Your task to perform on an android device: Go to Yahoo.com Image 0: 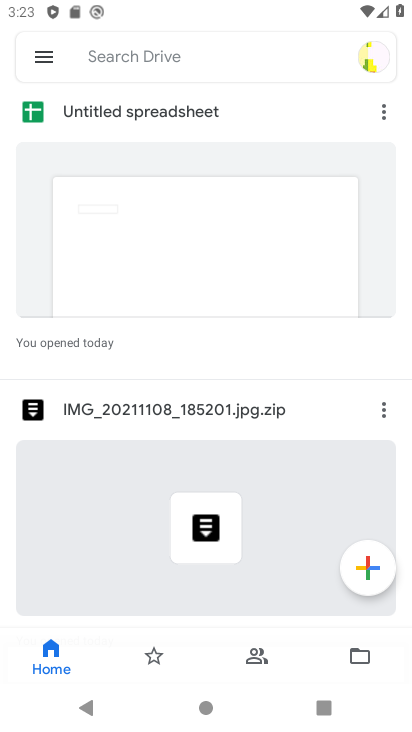
Step 0: press home button
Your task to perform on an android device: Go to Yahoo.com Image 1: 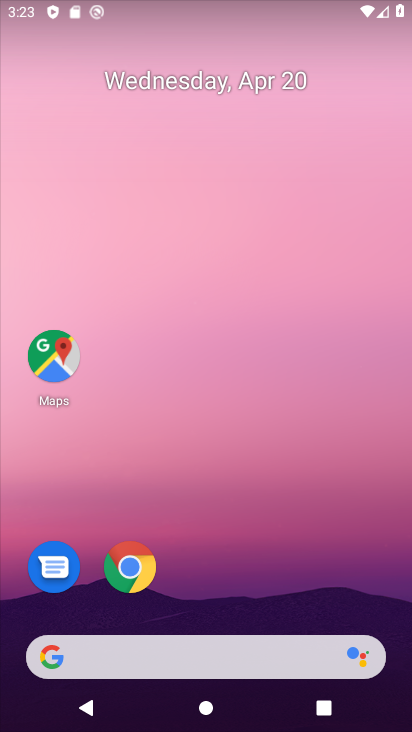
Step 1: drag from (317, 533) to (267, 65)
Your task to perform on an android device: Go to Yahoo.com Image 2: 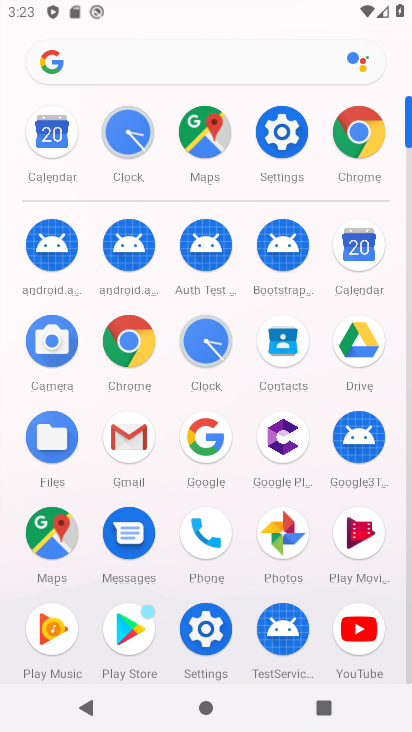
Step 2: click (355, 152)
Your task to perform on an android device: Go to Yahoo.com Image 3: 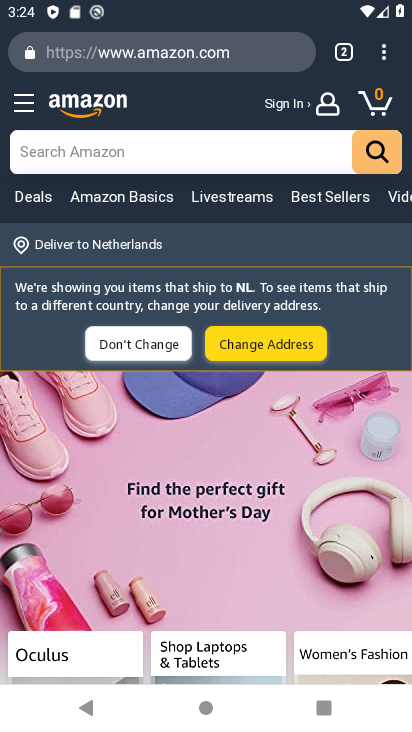
Step 3: click (251, 42)
Your task to perform on an android device: Go to Yahoo.com Image 4: 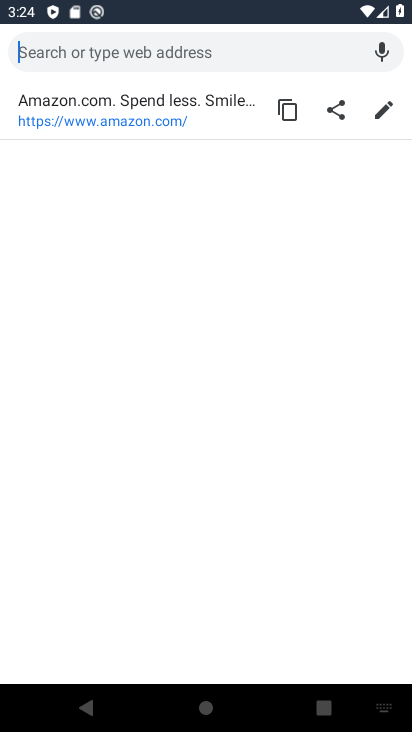
Step 4: type "yahoo.com"
Your task to perform on an android device: Go to Yahoo.com Image 5: 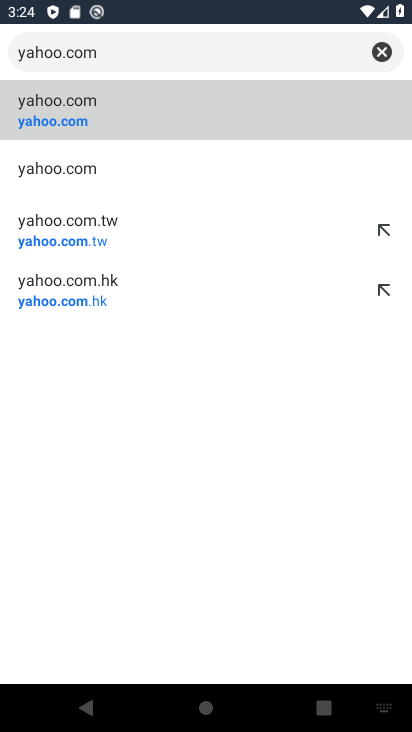
Step 5: click (60, 126)
Your task to perform on an android device: Go to Yahoo.com Image 6: 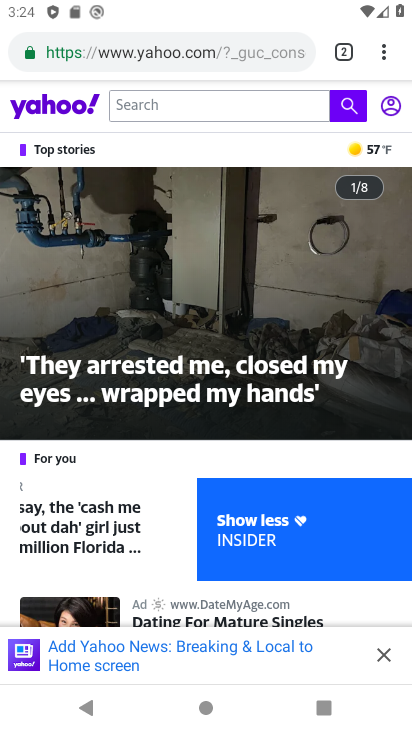
Step 6: task complete